Your task to perform on an android device: Open battery settings Image 0: 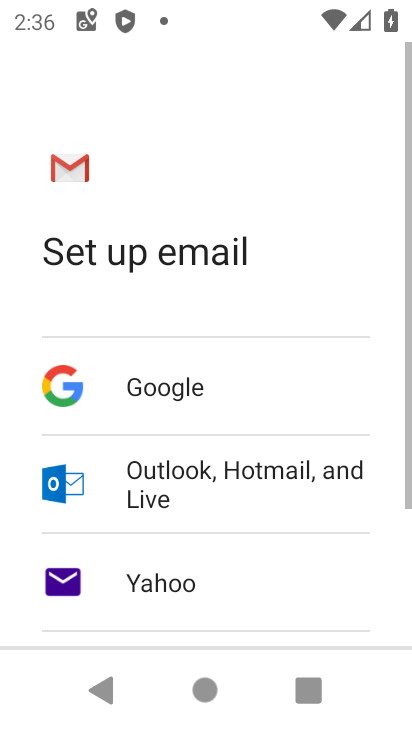
Step 0: press home button
Your task to perform on an android device: Open battery settings Image 1: 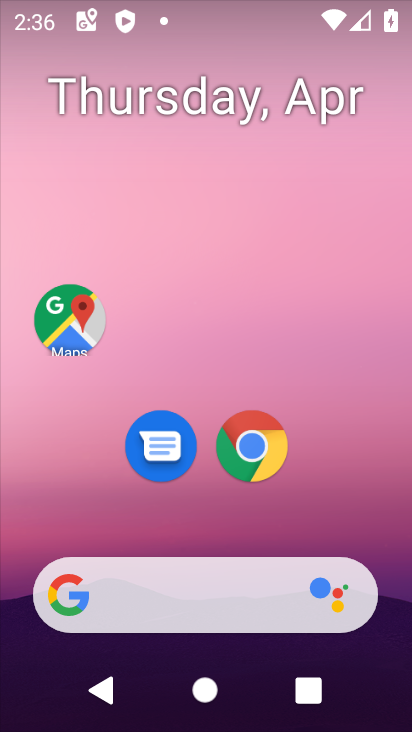
Step 1: drag from (216, 649) to (226, 199)
Your task to perform on an android device: Open battery settings Image 2: 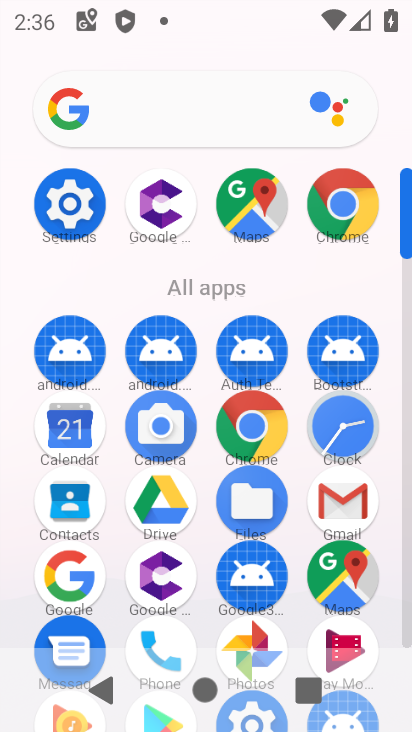
Step 2: click (62, 189)
Your task to perform on an android device: Open battery settings Image 3: 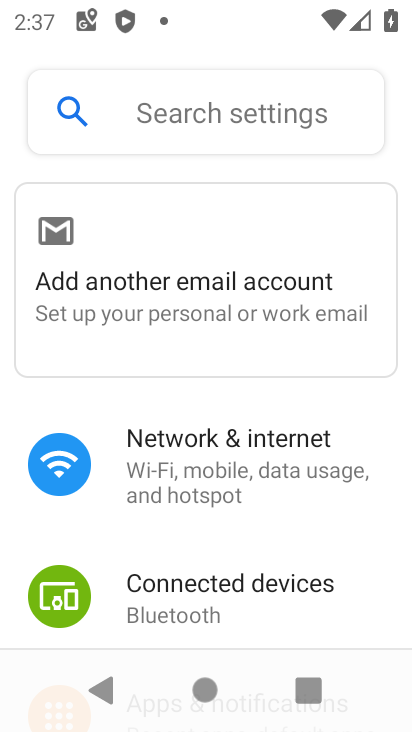
Step 3: click (169, 106)
Your task to perform on an android device: Open battery settings Image 4: 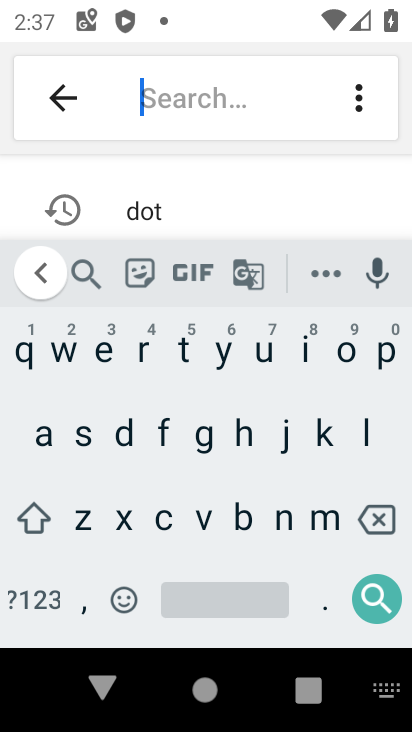
Step 4: click (241, 511)
Your task to perform on an android device: Open battery settings Image 5: 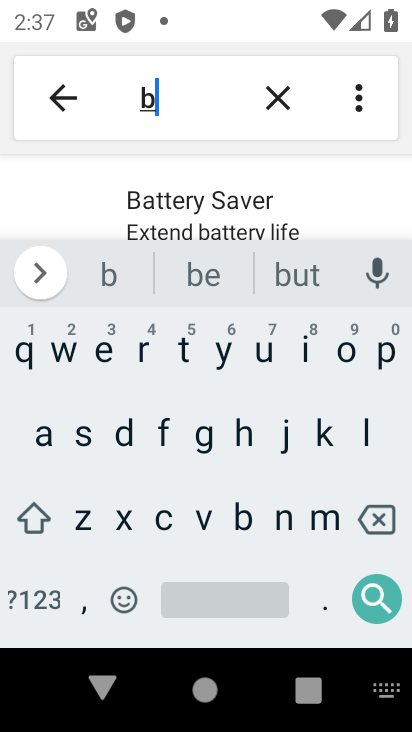
Step 5: click (38, 434)
Your task to perform on an android device: Open battery settings Image 6: 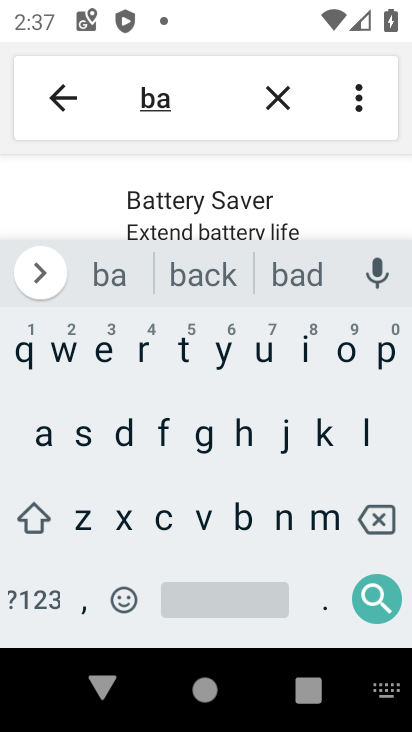
Step 6: click (177, 353)
Your task to perform on an android device: Open battery settings Image 7: 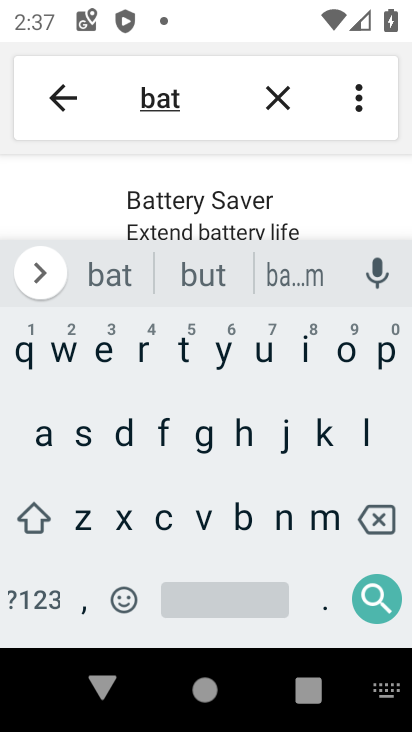
Step 7: click (177, 353)
Your task to perform on an android device: Open battery settings Image 8: 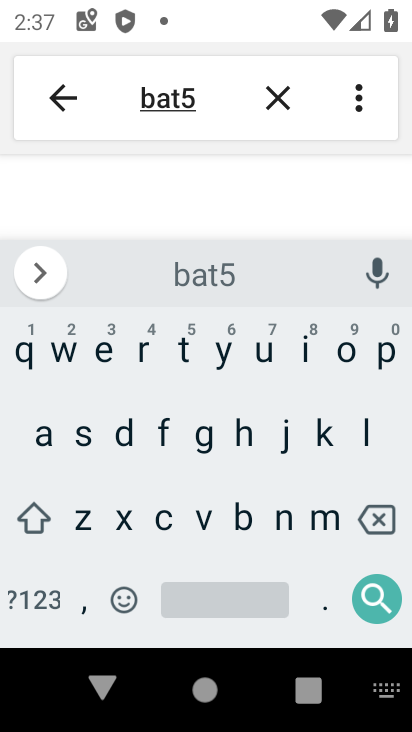
Step 8: click (381, 516)
Your task to perform on an android device: Open battery settings Image 9: 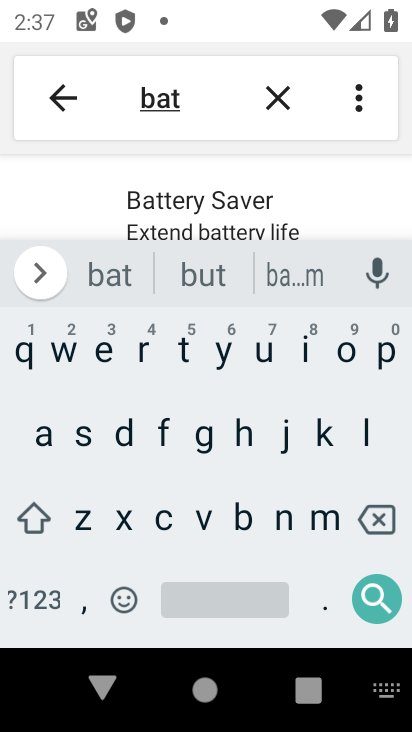
Step 9: press back button
Your task to perform on an android device: Open battery settings Image 10: 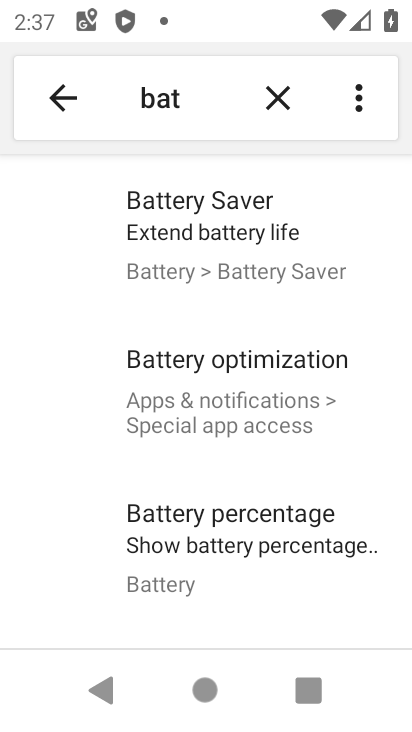
Step 10: drag from (226, 511) to (289, 248)
Your task to perform on an android device: Open battery settings Image 11: 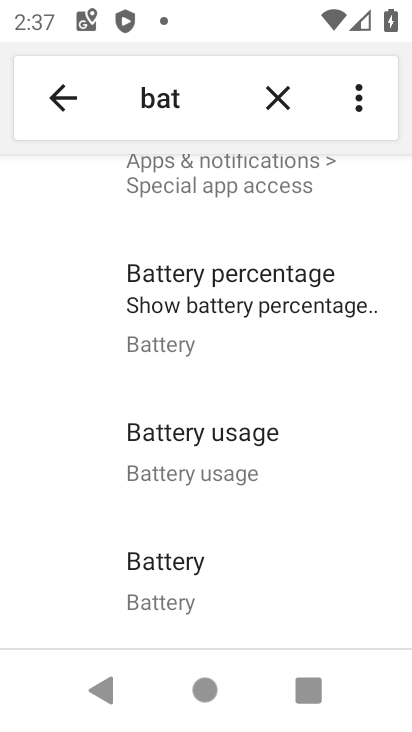
Step 11: click (164, 586)
Your task to perform on an android device: Open battery settings Image 12: 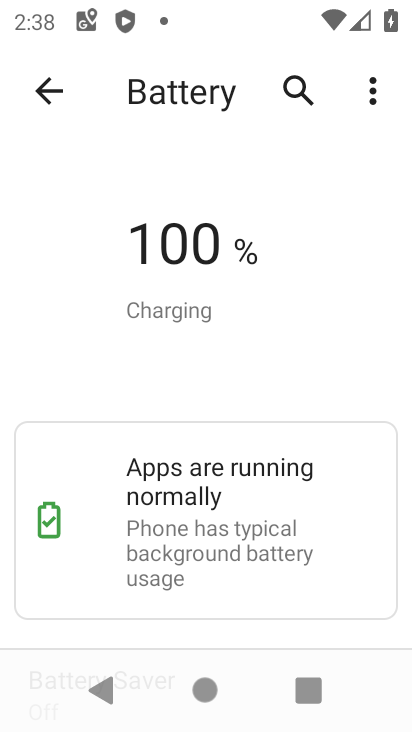
Step 12: task complete